Your task to perform on an android device: Go to notification settings Image 0: 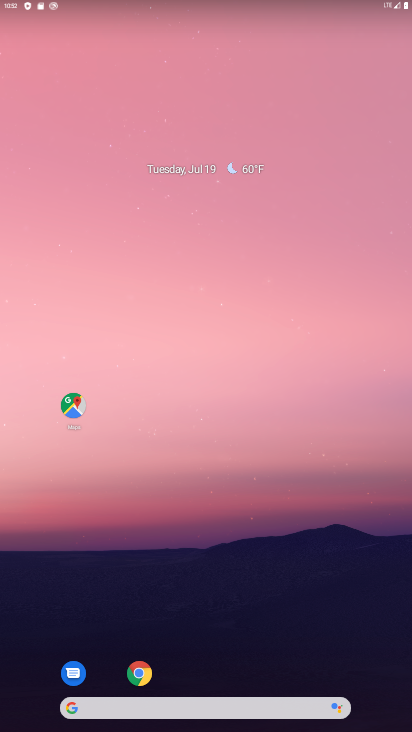
Step 0: drag from (233, 616) to (279, 147)
Your task to perform on an android device: Go to notification settings Image 1: 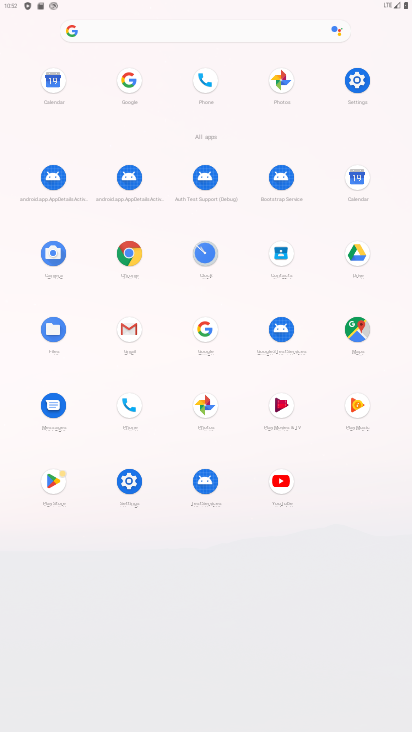
Step 1: click (354, 81)
Your task to perform on an android device: Go to notification settings Image 2: 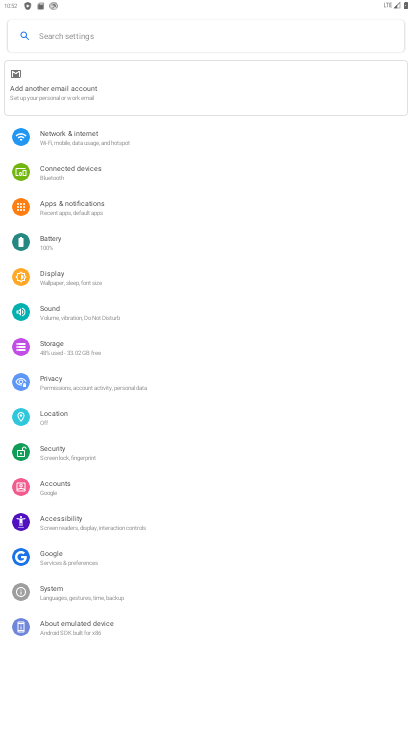
Step 2: click (97, 213)
Your task to perform on an android device: Go to notification settings Image 3: 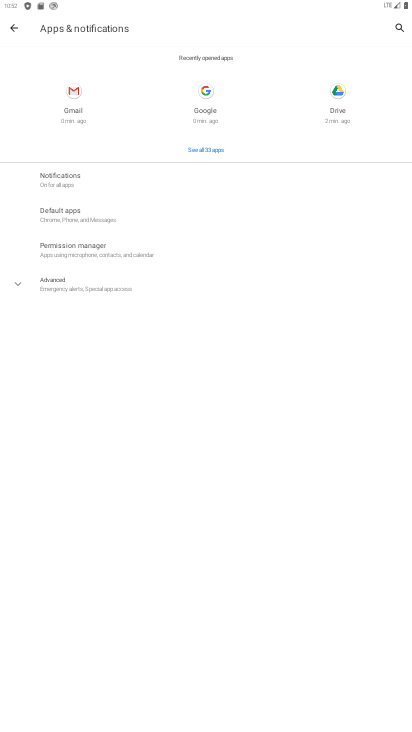
Step 3: click (75, 176)
Your task to perform on an android device: Go to notification settings Image 4: 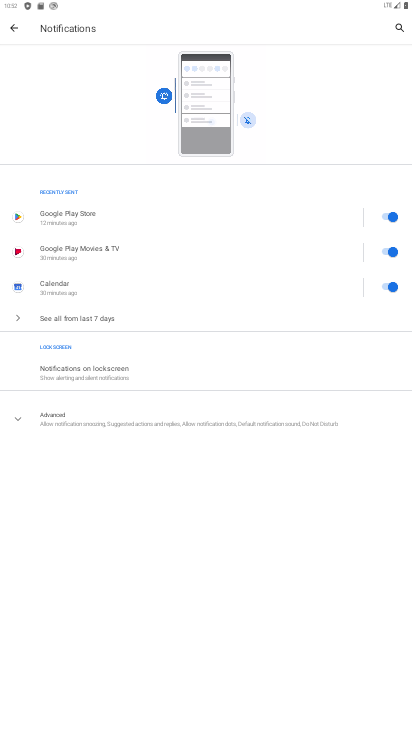
Step 4: task complete